Your task to perform on an android device: change notifications settings Image 0: 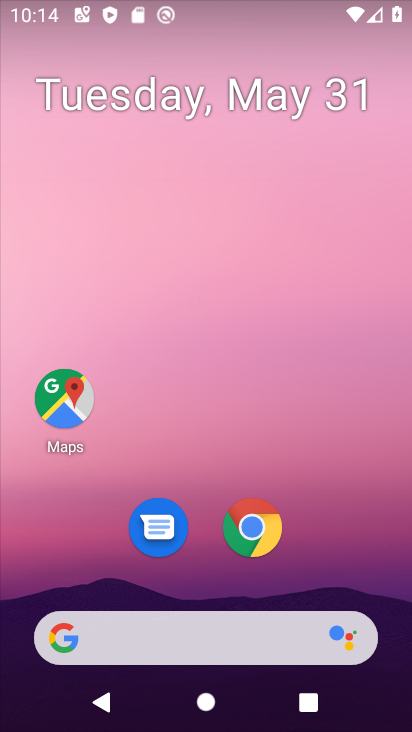
Step 0: drag from (335, 471) to (264, 9)
Your task to perform on an android device: change notifications settings Image 1: 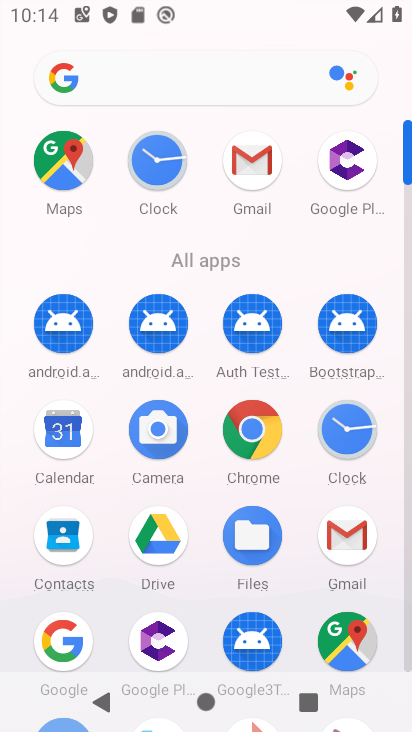
Step 1: drag from (206, 642) to (243, 283)
Your task to perform on an android device: change notifications settings Image 2: 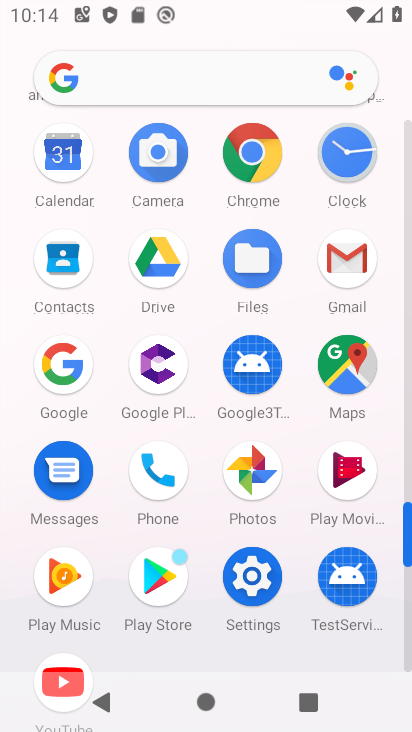
Step 2: click (255, 585)
Your task to perform on an android device: change notifications settings Image 3: 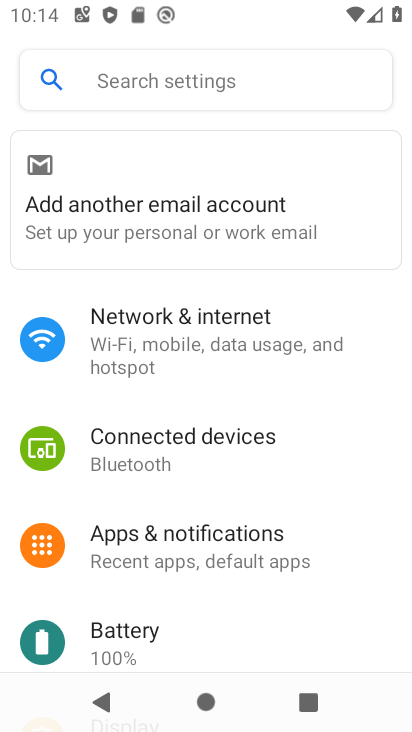
Step 3: click (234, 540)
Your task to perform on an android device: change notifications settings Image 4: 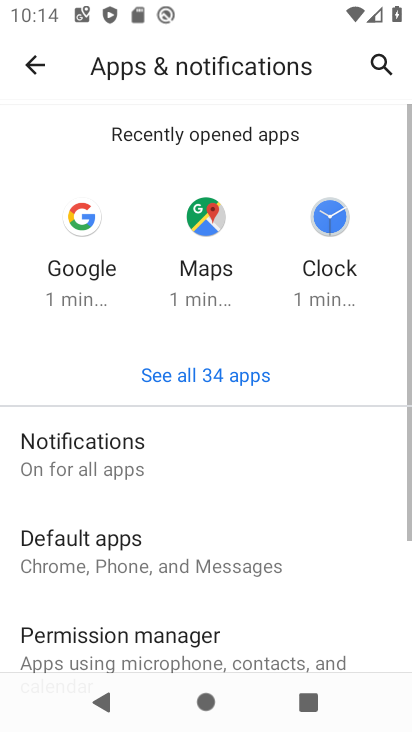
Step 4: click (228, 475)
Your task to perform on an android device: change notifications settings Image 5: 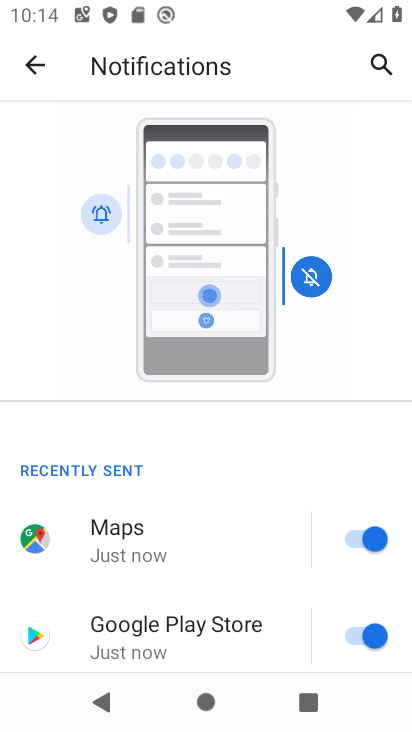
Step 5: drag from (191, 654) to (285, 416)
Your task to perform on an android device: change notifications settings Image 6: 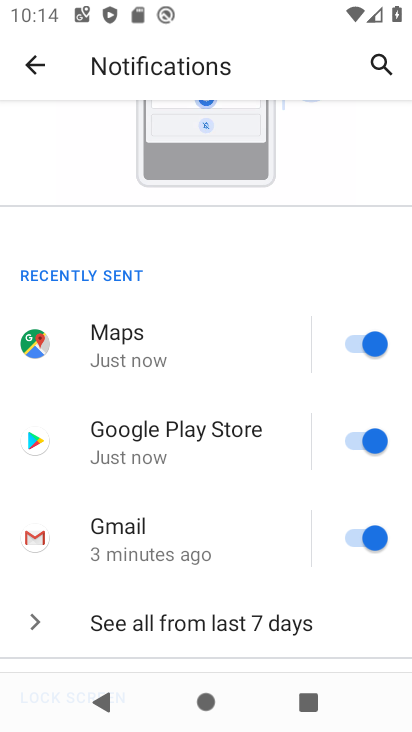
Step 6: click (375, 353)
Your task to perform on an android device: change notifications settings Image 7: 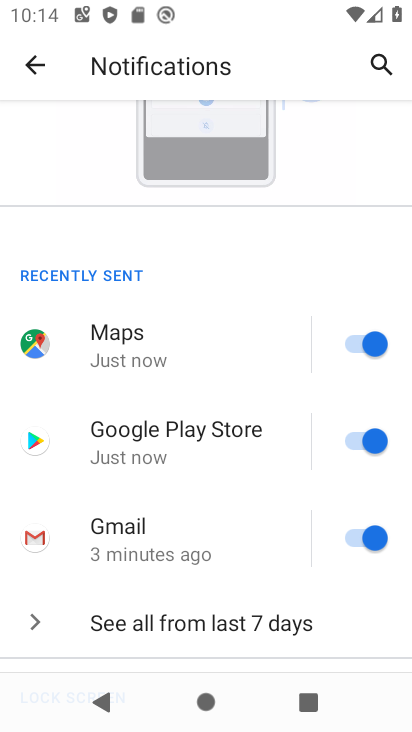
Step 7: click (372, 448)
Your task to perform on an android device: change notifications settings Image 8: 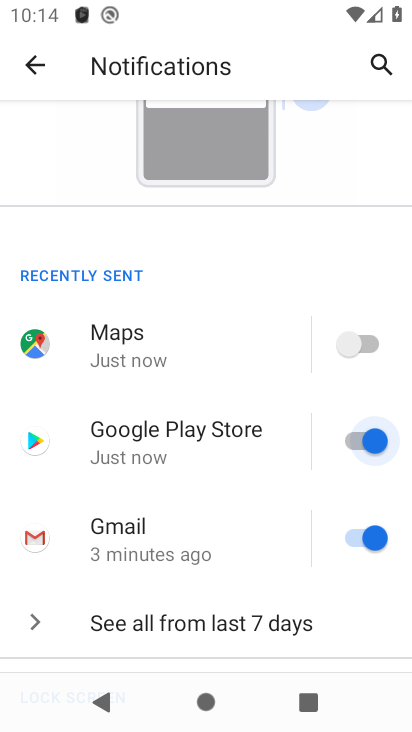
Step 8: click (363, 535)
Your task to perform on an android device: change notifications settings Image 9: 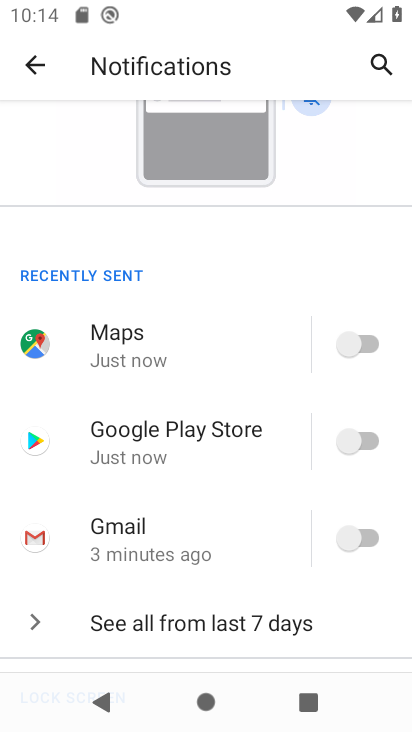
Step 9: task complete